Your task to perform on an android device: Go to wifi settings Image 0: 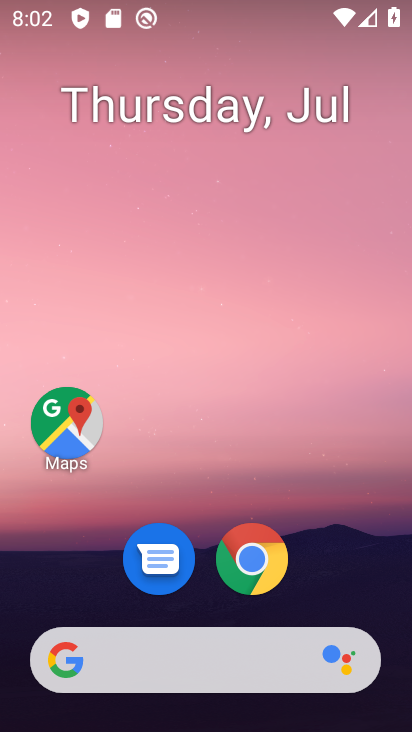
Step 0: drag from (121, 19) to (241, 564)
Your task to perform on an android device: Go to wifi settings Image 1: 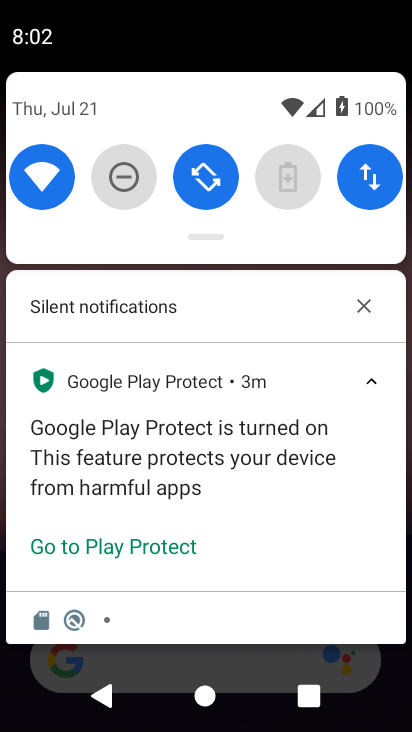
Step 1: click (51, 170)
Your task to perform on an android device: Go to wifi settings Image 2: 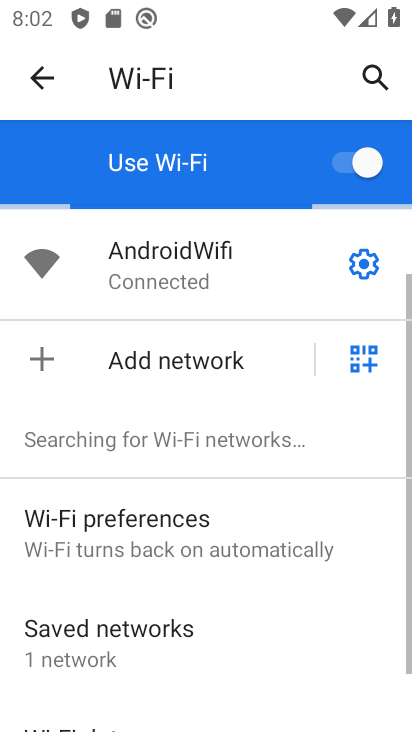
Step 2: task complete